Your task to perform on an android device: Find coffee shops on Maps Image 0: 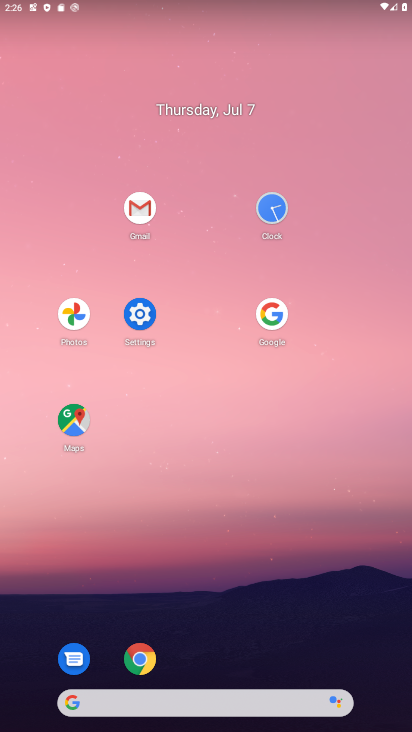
Step 0: click (71, 406)
Your task to perform on an android device: Find coffee shops on Maps Image 1: 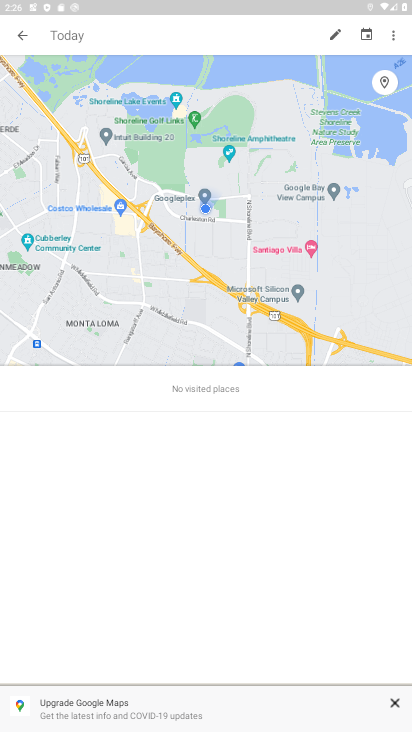
Step 1: click (26, 30)
Your task to perform on an android device: Find coffee shops on Maps Image 2: 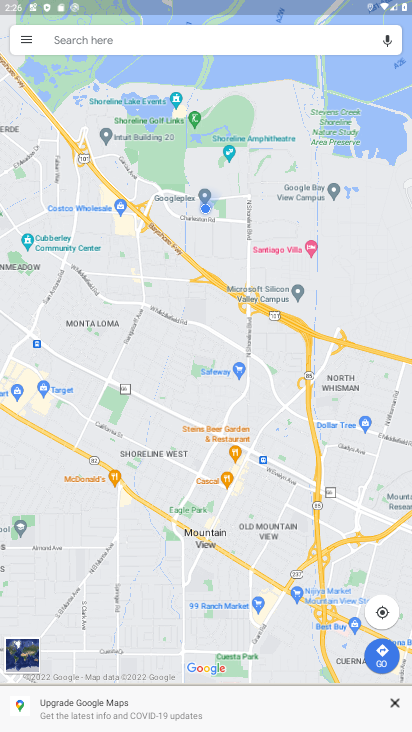
Step 2: click (168, 42)
Your task to perform on an android device: Find coffee shops on Maps Image 3: 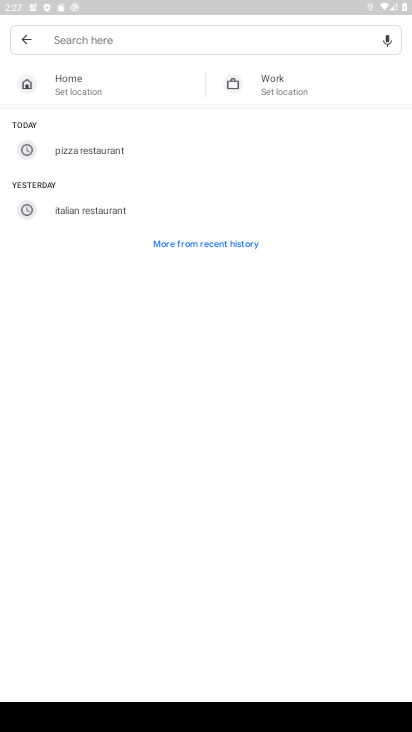
Step 3: type "coffee shops"
Your task to perform on an android device: Find coffee shops on Maps Image 4: 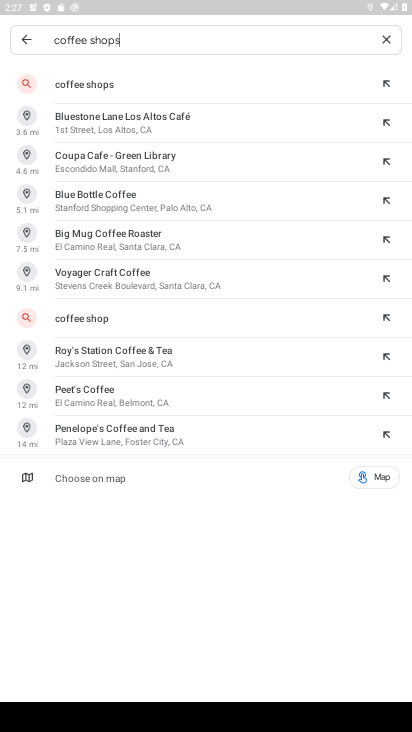
Step 4: task complete